Your task to perform on an android device: Open calendar and show me the first week of next month Image 0: 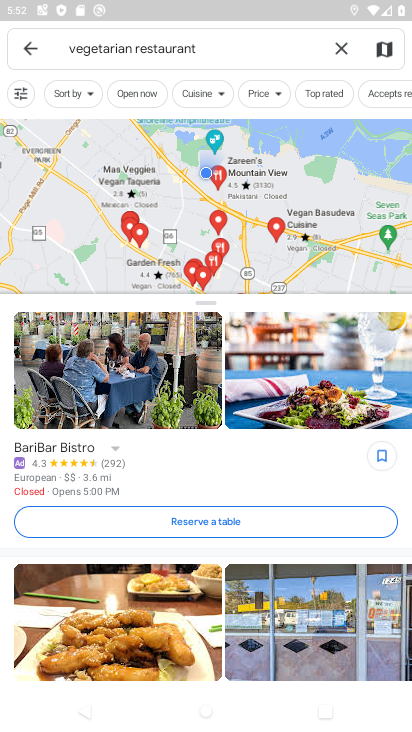
Step 0: press back button
Your task to perform on an android device: Open calendar and show me the first week of next month Image 1: 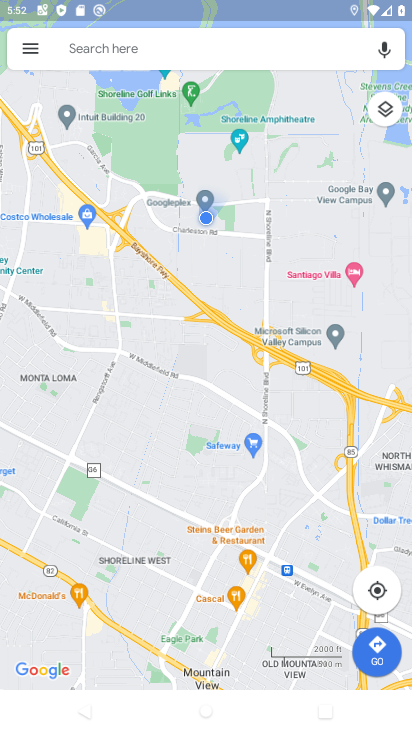
Step 1: press back button
Your task to perform on an android device: Open calendar and show me the first week of next month Image 2: 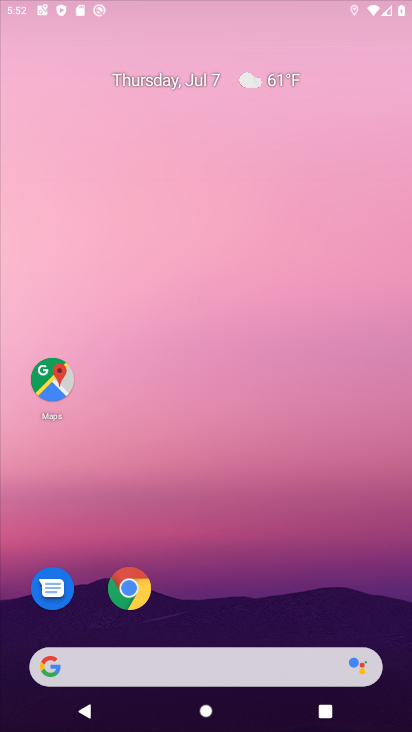
Step 2: drag from (233, 548) to (239, 28)
Your task to perform on an android device: Open calendar and show me the first week of next month Image 3: 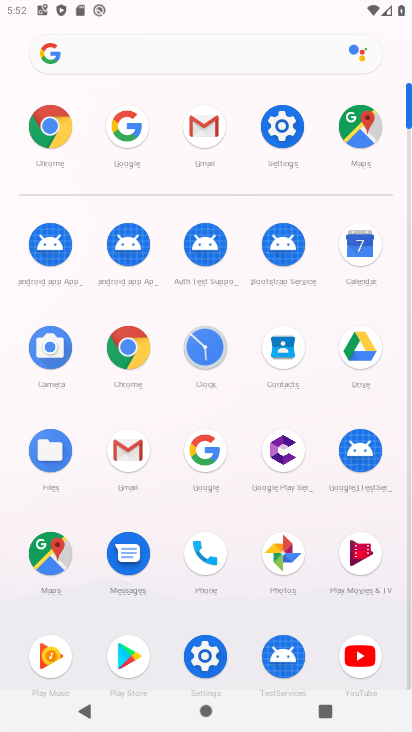
Step 3: click (353, 255)
Your task to perform on an android device: Open calendar and show me the first week of next month Image 4: 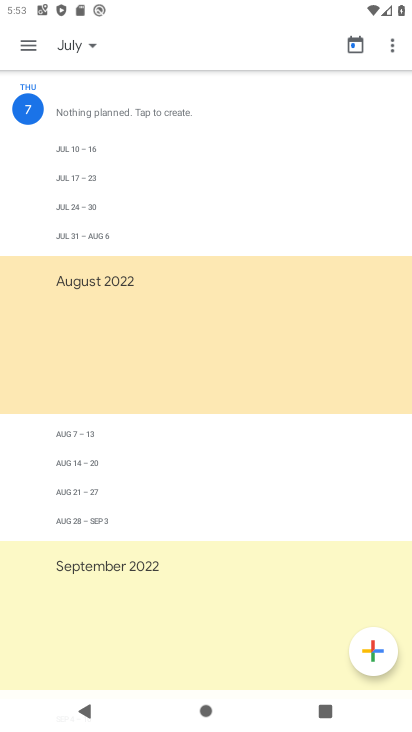
Step 4: click (87, 42)
Your task to perform on an android device: Open calendar and show me the first week of next month Image 5: 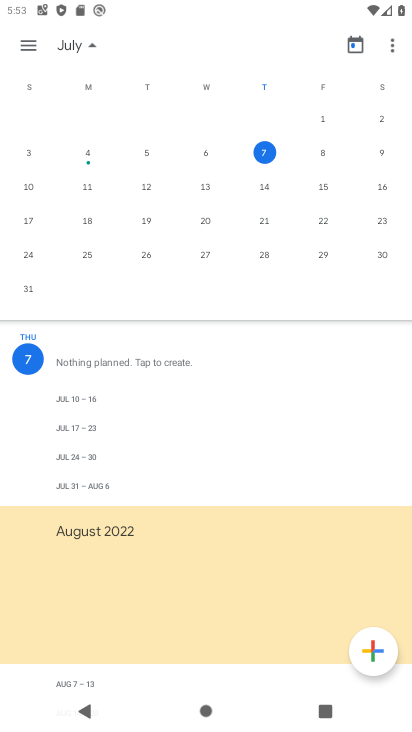
Step 5: drag from (380, 177) to (7, 157)
Your task to perform on an android device: Open calendar and show me the first week of next month Image 6: 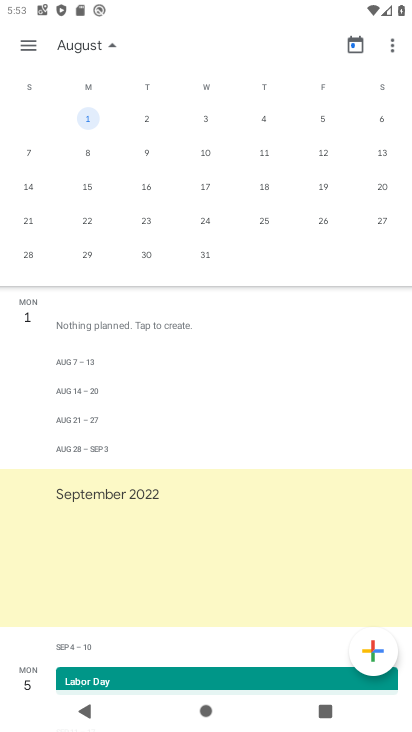
Step 6: click (84, 116)
Your task to perform on an android device: Open calendar and show me the first week of next month Image 7: 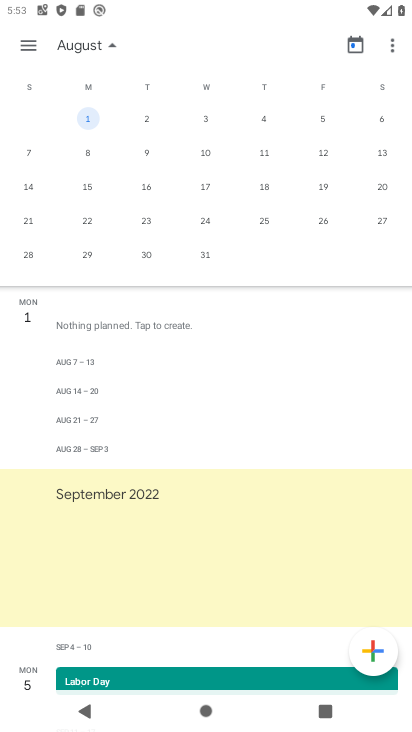
Step 7: task complete